Your task to perform on an android device: check battery use Image 0: 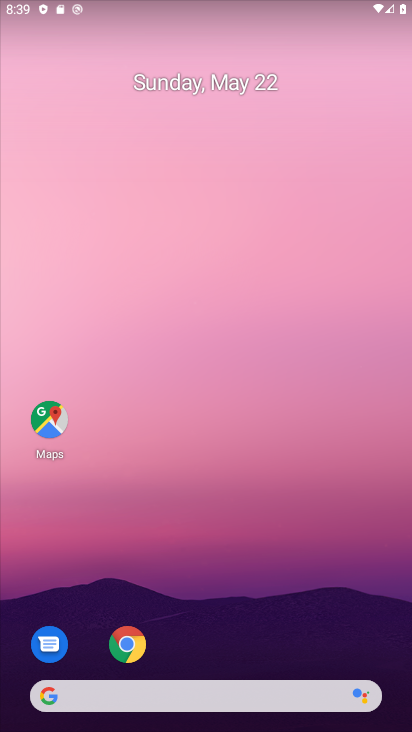
Step 0: drag from (130, 696) to (193, 154)
Your task to perform on an android device: check battery use Image 1: 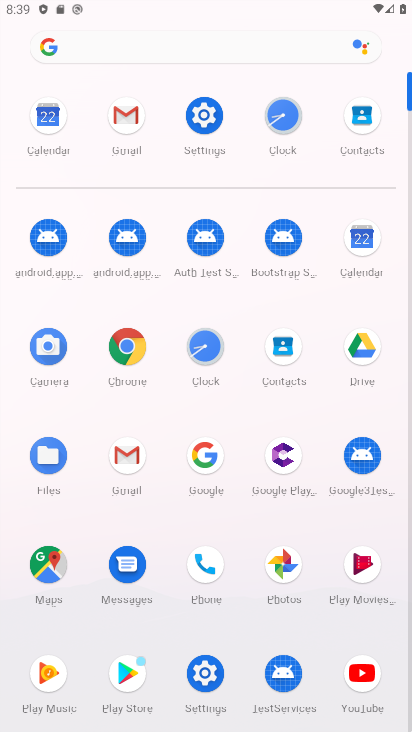
Step 1: click (194, 123)
Your task to perform on an android device: check battery use Image 2: 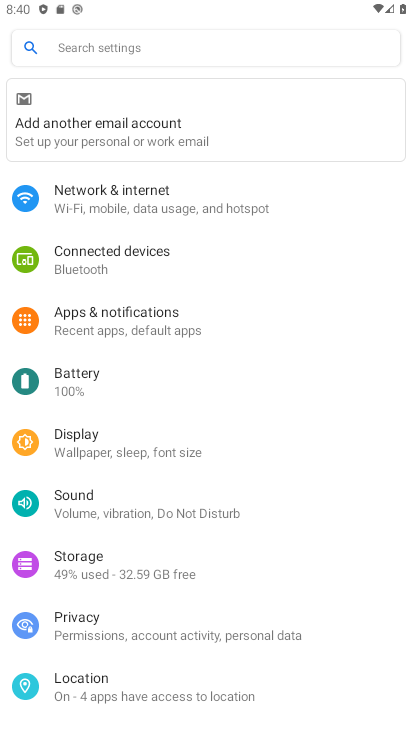
Step 2: click (76, 386)
Your task to perform on an android device: check battery use Image 3: 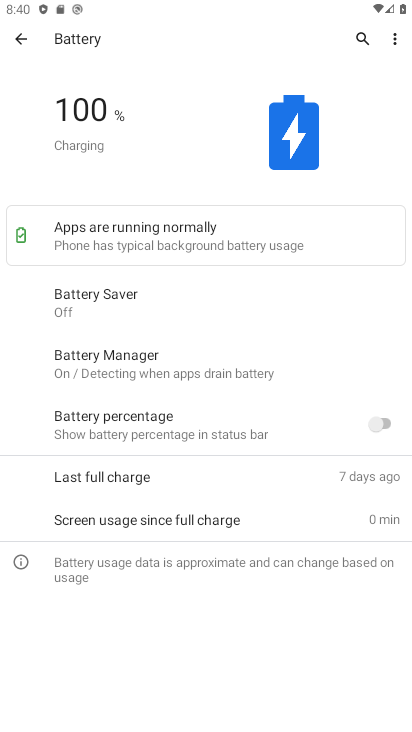
Step 3: click (392, 42)
Your task to perform on an android device: check battery use Image 4: 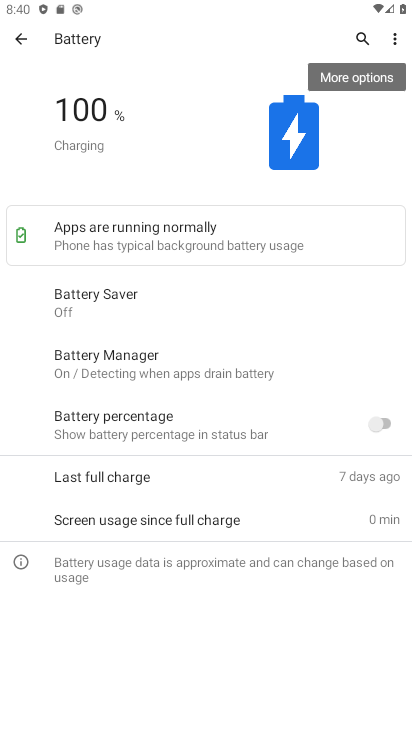
Step 4: click (392, 42)
Your task to perform on an android device: check battery use Image 5: 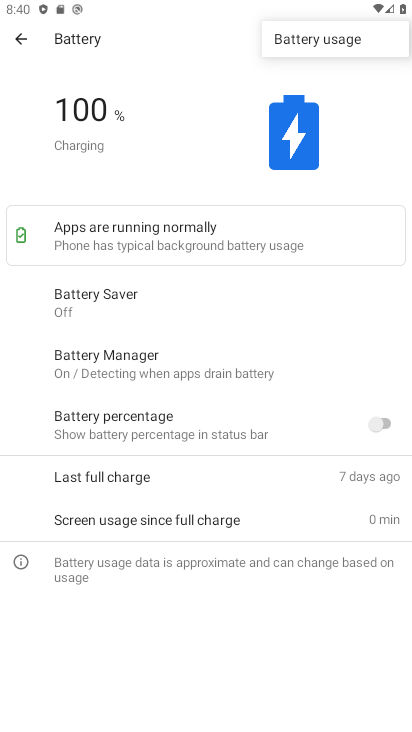
Step 5: click (334, 55)
Your task to perform on an android device: check battery use Image 6: 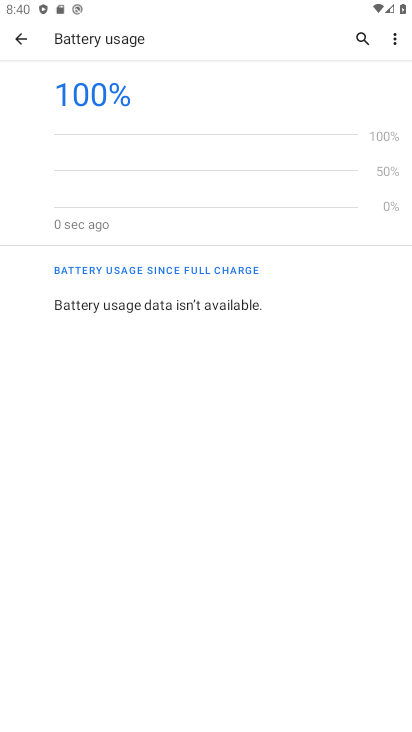
Step 6: task complete